Your task to perform on an android device: delete location history Image 0: 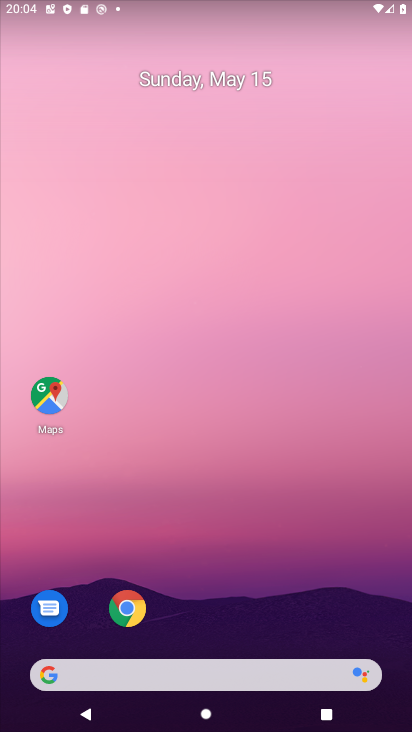
Step 0: drag from (195, 602) to (213, 101)
Your task to perform on an android device: delete location history Image 1: 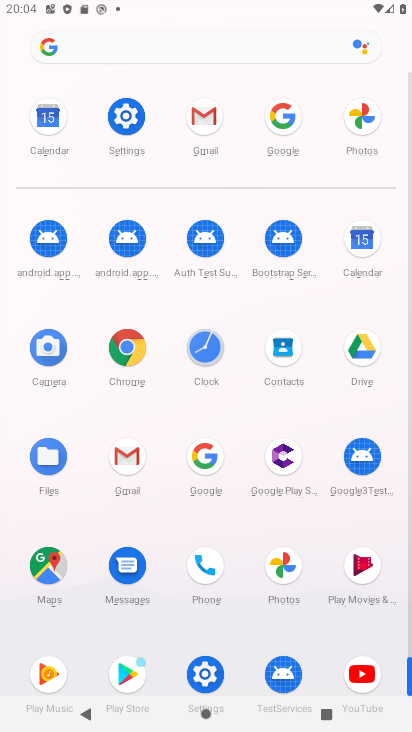
Step 1: click (126, 109)
Your task to perform on an android device: delete location history Image 2: 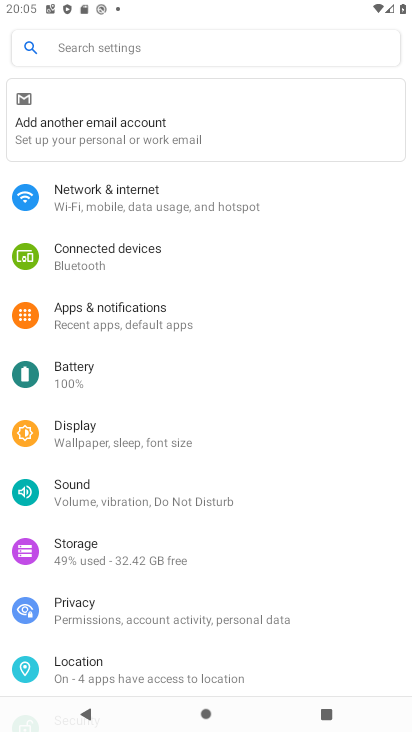
Step 2: click (121, 662)
Your task to perform on an android device: delete location history Image 3: 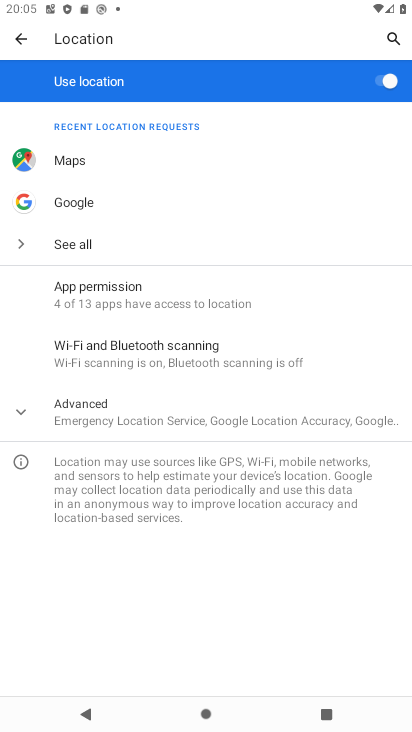
Step 3: click (109, 419)
Your task to perform on an android device: delete location history Image 4: 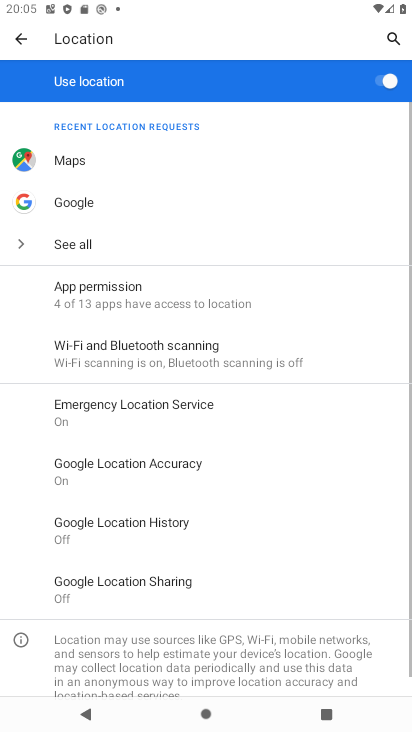
Step 4: click (128, 522)
Your task to perform on an android device: delete location history Image 5: 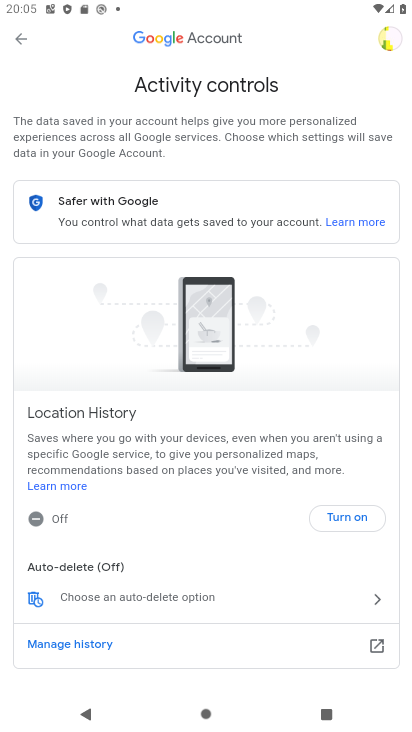
Step 5: drag from (193, 610) to (199, 414)
Your task to perform on an android device: delete location history Image 6: 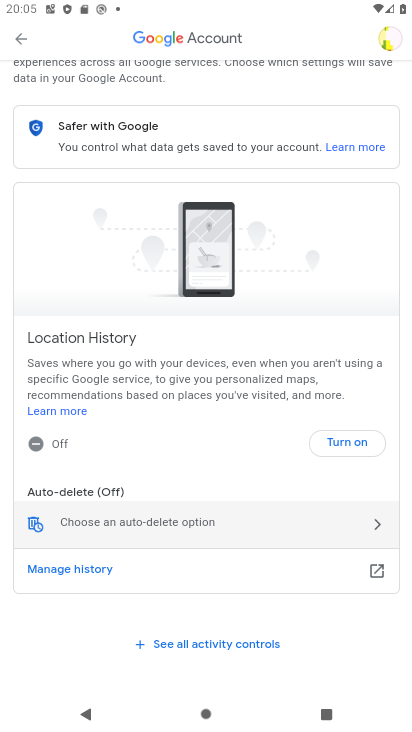
Step 6: click (32, 517)
Your task to perform on an android device: delete location history Image 7: 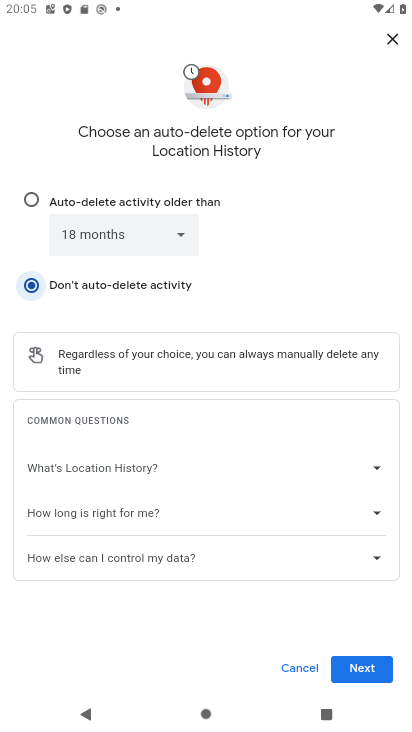
Step 7: click (355, 668)
Your task to perform on an android device: delete location history Image 8: 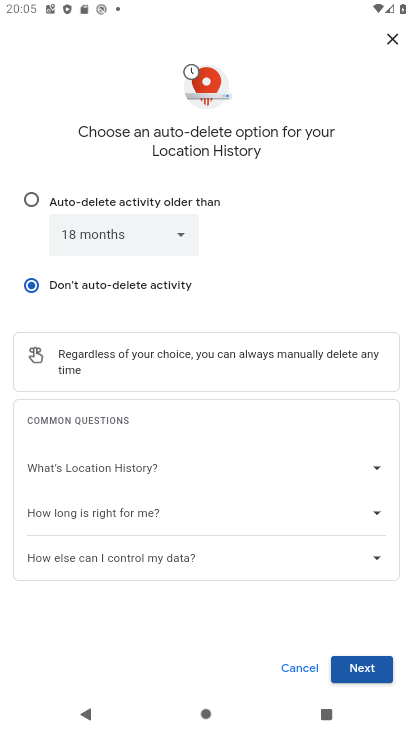
Step 8: click (357, 669)
Your task to perform on an android device: delete location history Image 9: 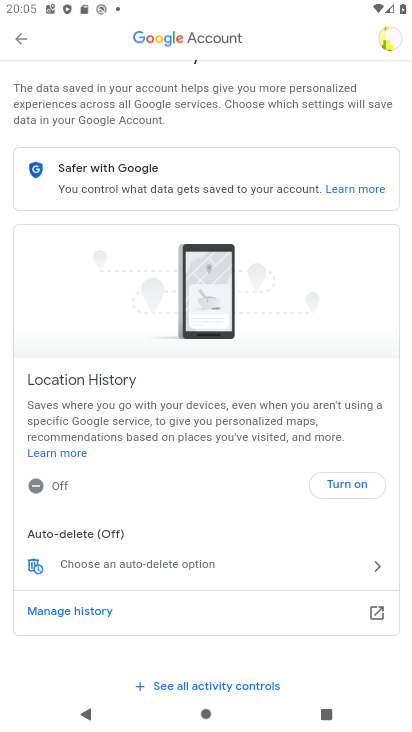
Step 9: task complete